Your task to perform on an android device: Search for Italian restaurants on Maps Image 0: 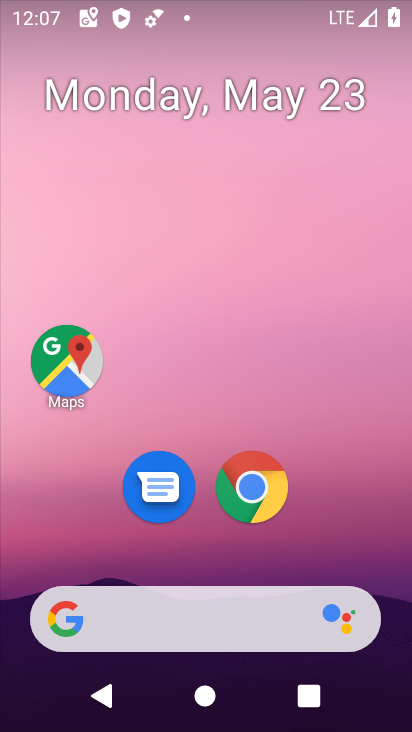
Step 0: click (74, 355)
Your task to perform on an android device: Search for Italian restaurants on Maps Image 1: 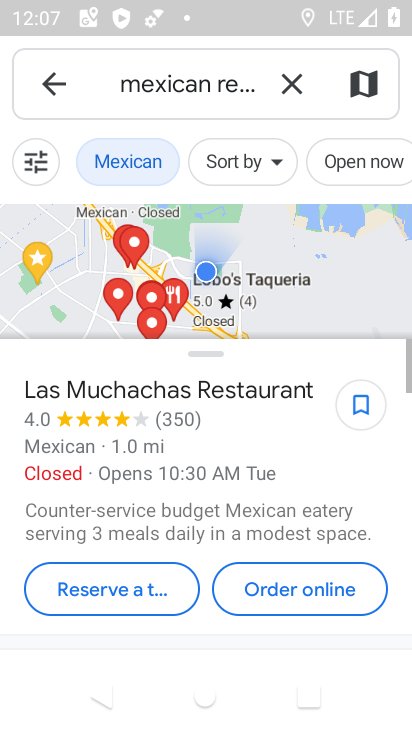
Step 1: click (290, 74)
Your task to perform on an android device: Search for Italian restaurants on Maps Image 2: 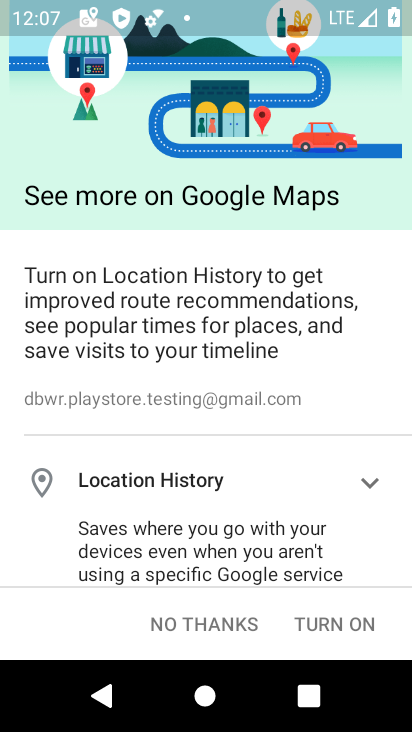
Step 2: click (337, 613)
Your task to perform on an android device: Search for Italian restaurants on Maps Image 3: 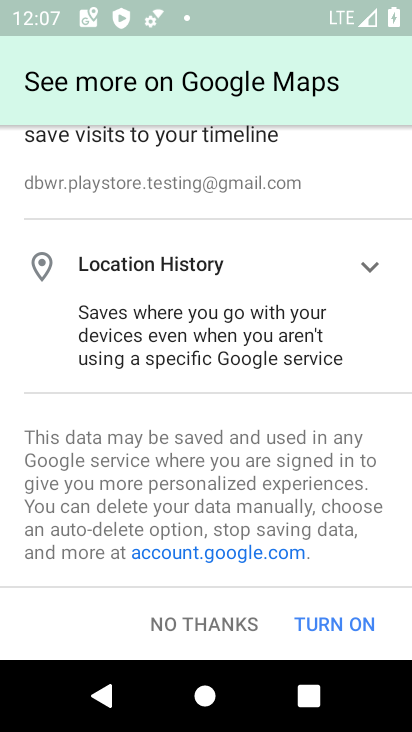
Step 3: click (339, 613)
Your task to perform on an android device: Search for Italian restaurants on Maps Image 4: 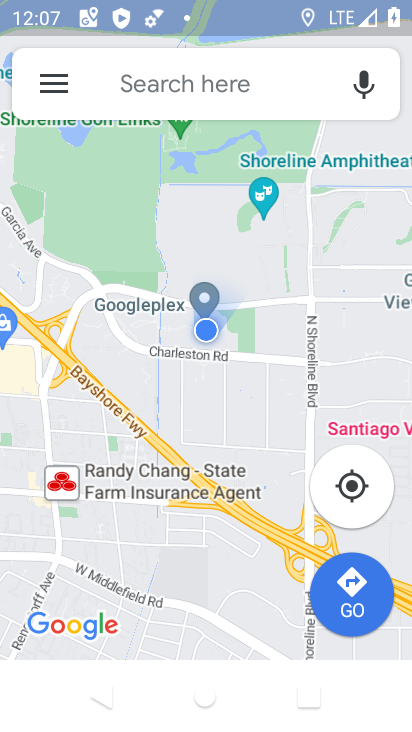
Step 4: click (221, 86)
Your task to perform on an android device: Search for Italian restaurants on Maps Image 5: 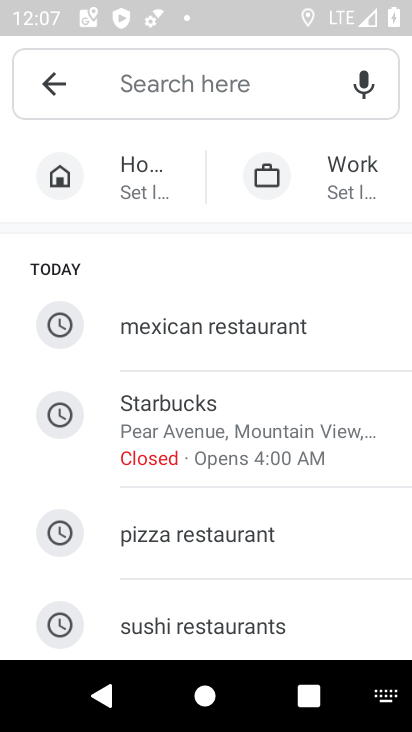
Step 5: drag from (275, 588) to (255, 273)
Your task to perform on an android device: Search for Italian restaurants on Maps Image 6: 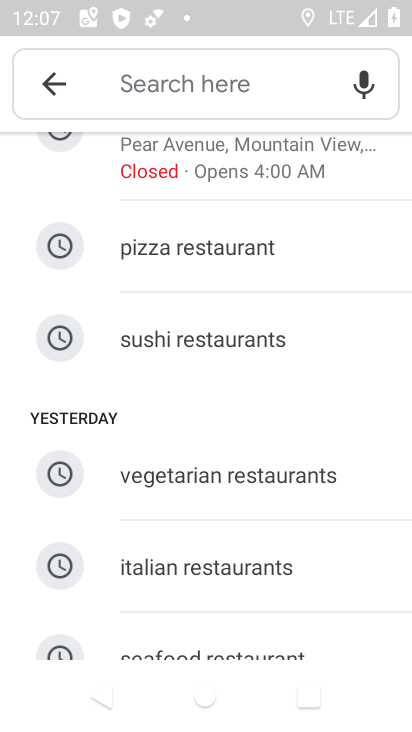
Step 6: click (268, 555)
Your task to perform on an android device: Search for Italian restaurants on Maps Image 7: 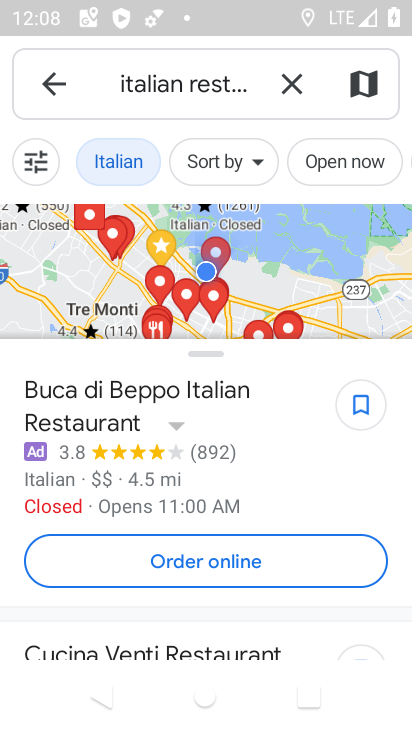
Step 7: task complete